Your task to perform on an android device: Go to Amazon Image 0: 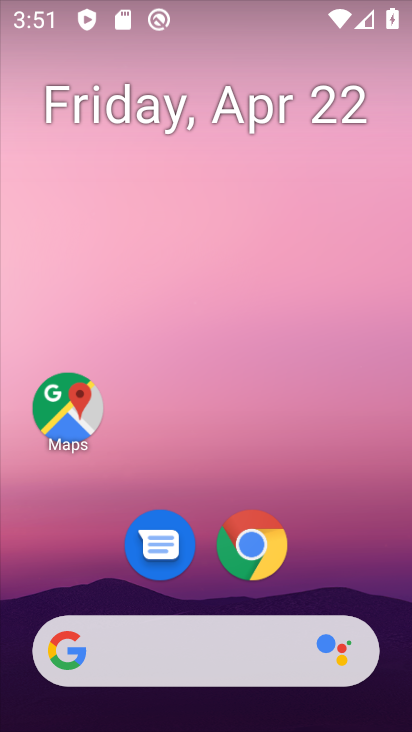
Step 0: click (274, 569)
Your task to perform on an android device: Go to Amazon Image 1: 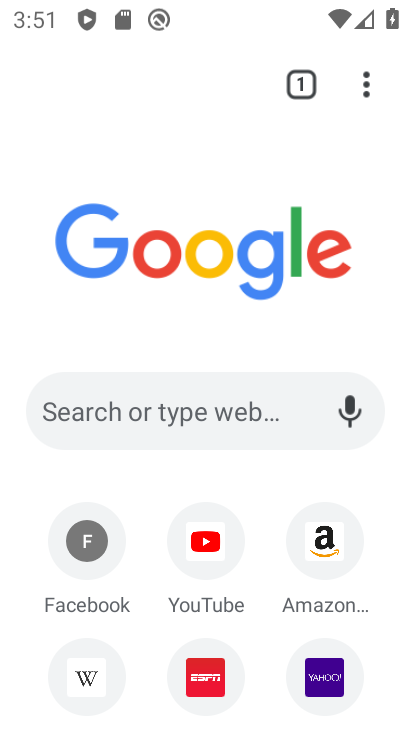
Step 1: click (343, 544)
Your task to perform on an android device: Go to Amazon Image 2: 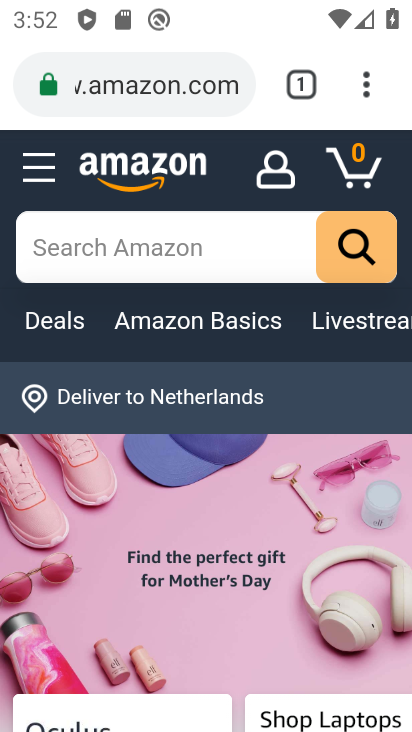
Step 2: task complete